Your task to perform on an android device: turn off smart reply in the gmail app Image 0: 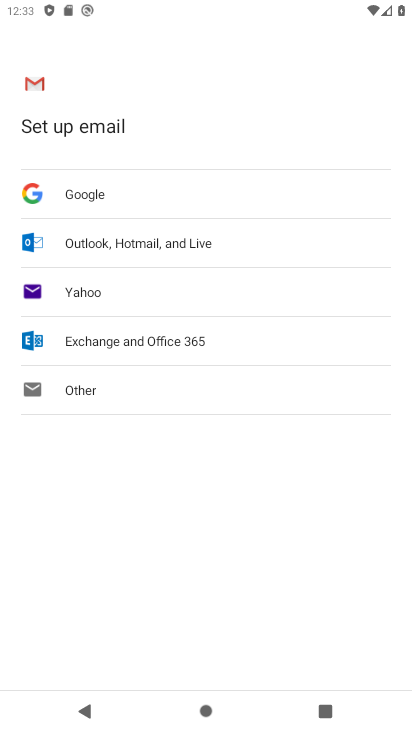
Step 0: press back button
Your task to perform on an android device: turn off smart reply in the gmail app Image 1: 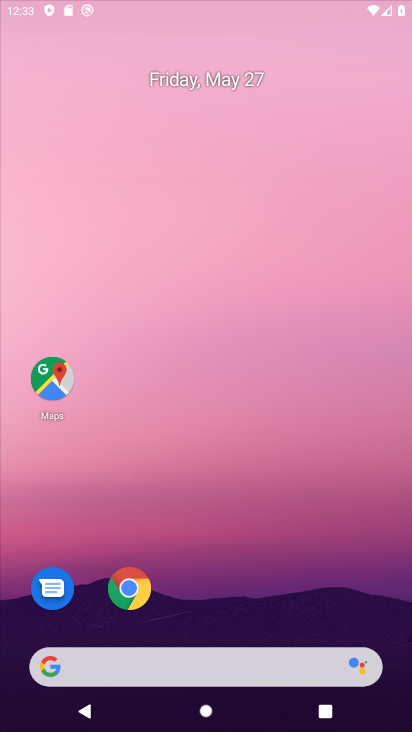
Step 1: press home button
Your task to perform on an android device: turn off smart reply in the gmail app Image 2: 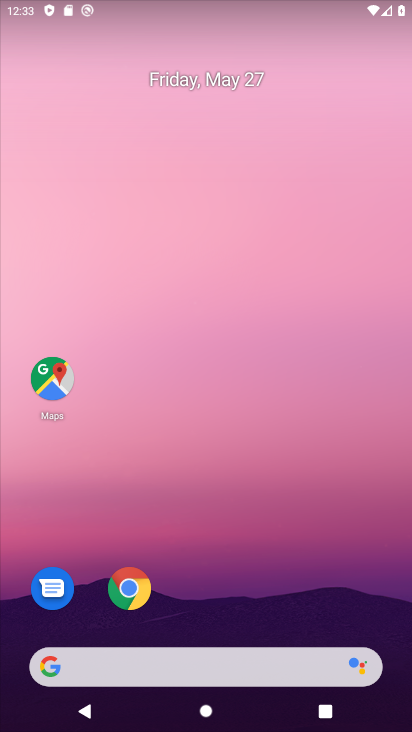
Step 2: drag from (232, 640) to (205, 67)
Your task to perform on an android device: turn off smart reply in the gmail app Image 3: 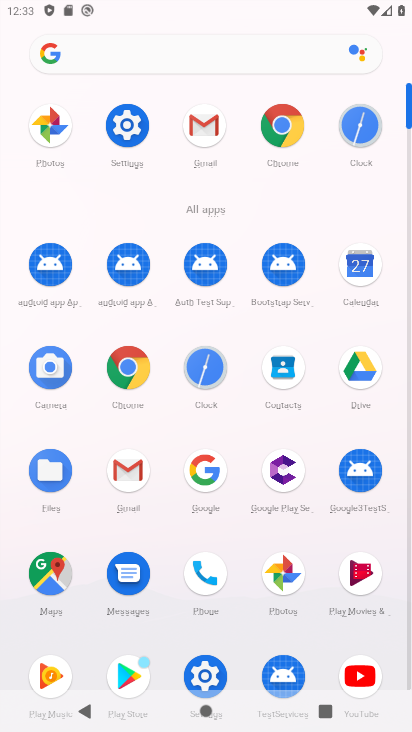
Step 3: click (122, 472)
Your task to perform on an android device: turn off smart reply in the gmail app Image 4: 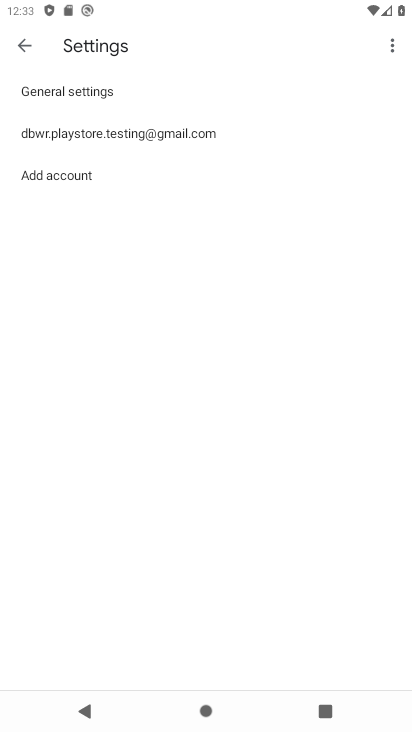
Step 4: click (71, 142)
Your task to perform on an android device: turn off smart reply in the gmail app Image 5: 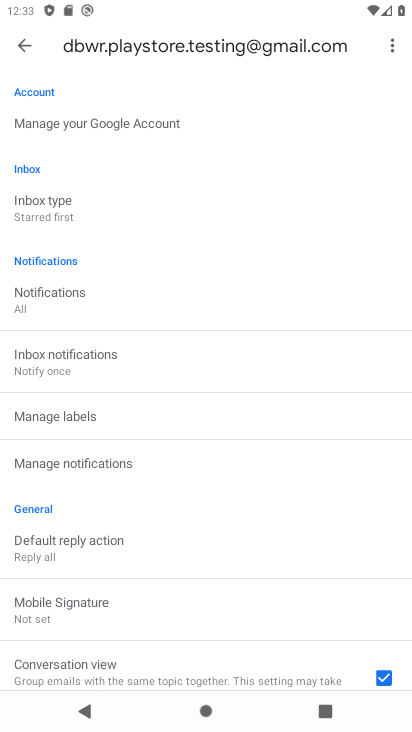
Step 5: drag from (88, 611) to (55, 331)
Your task to perform on an android device: turn off smart reply in the gmail app Image 6: 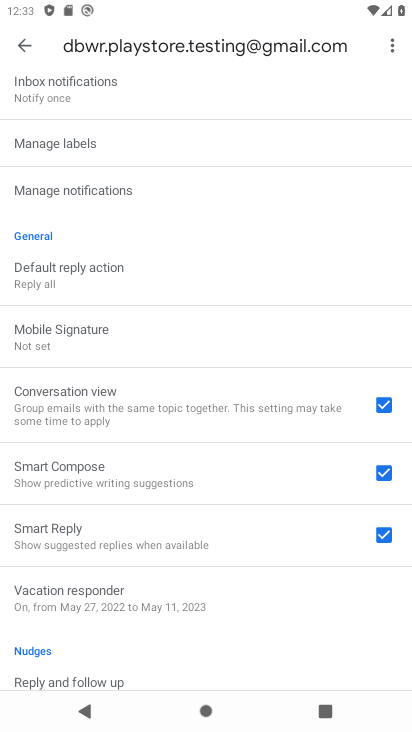
Step 6: click (374, 530)
Your task to perform on an android device: turn off smart reply in the gmail app Image 7: 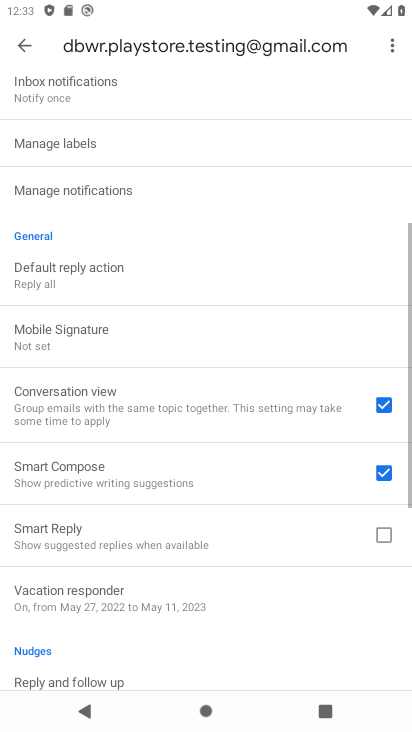
Step 7: task complete